Your task to perform on an android device: Search for seafood restaurants on Google Maps Image 0: 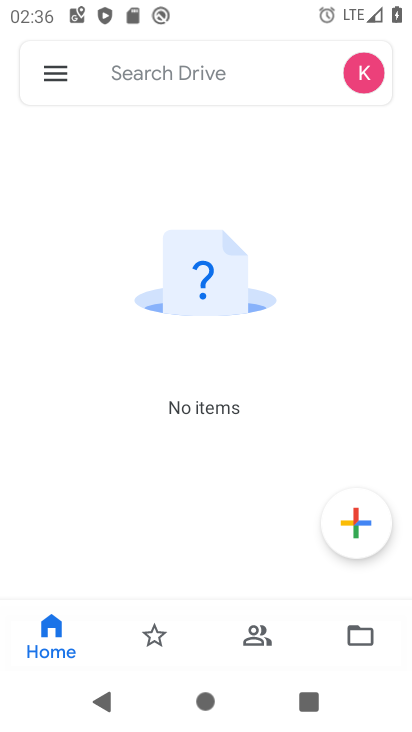
Step 0: press home button
Your task to perform on an android device: Search for seafood restaurants on Google Maps Image 1: 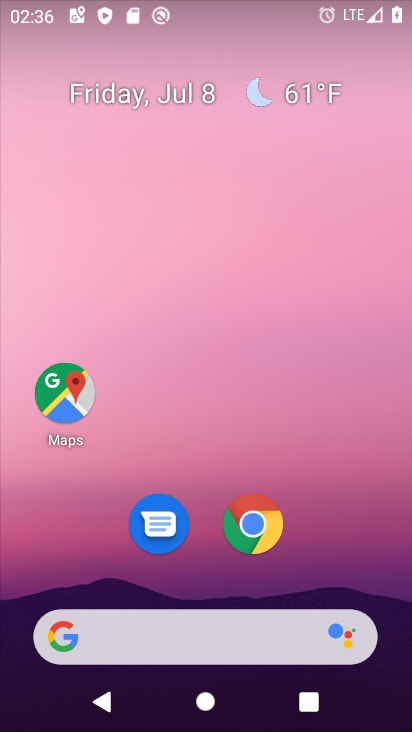
Step 1: click (80, 404)
Your task to perform on an android device: Search for seafood restaurants on Google Maps Image 2: 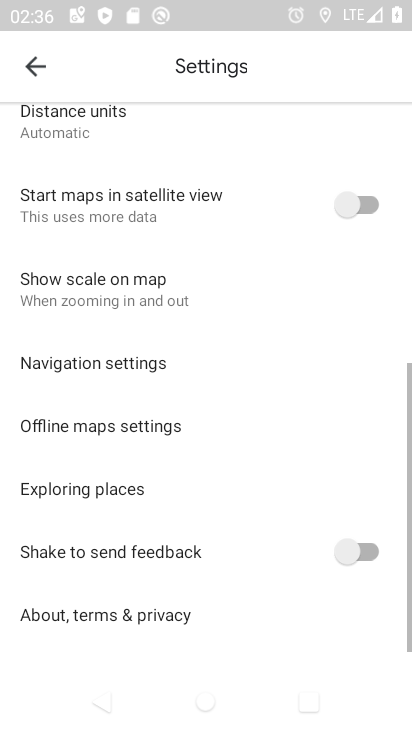
Step 2: click (24, 61)
Your task to perform on an android device: Search for seafood restaurants on Google Maps Image 3: 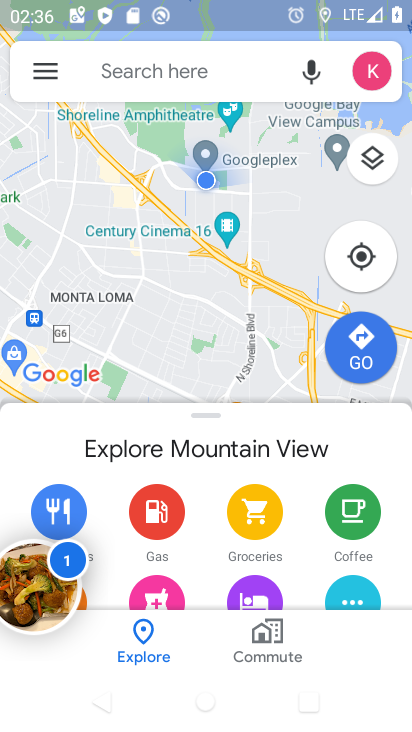
Step 3: click (138, 76)
Your task to perform on an android device: Search for seafood restaurants on Google Maps Image 4: 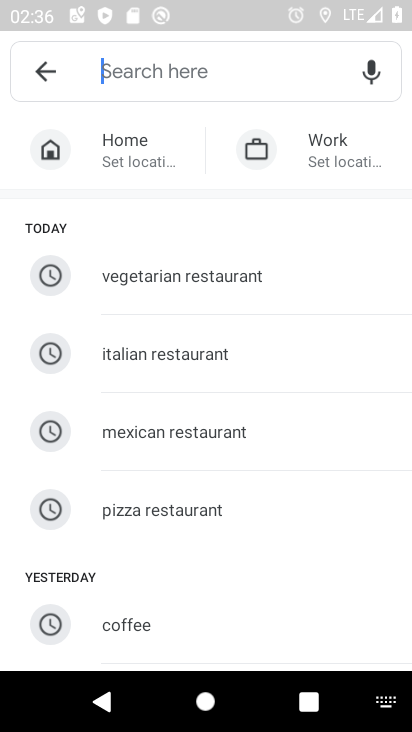
Step 4: drag from (280, 527) to (285, 320)
Your task to perform on an android device: Search for seafood restaurants on Google Maps Image 5: 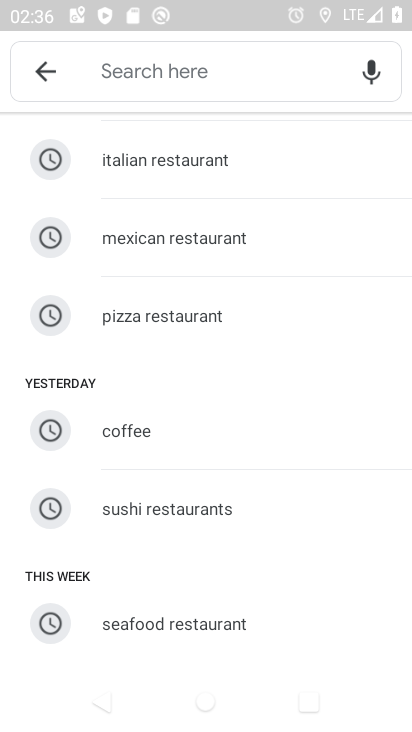
Step 5: click (217, 620)
Your task to perform on an android device: Search for seafood restaurants on Google Maps Image 6: 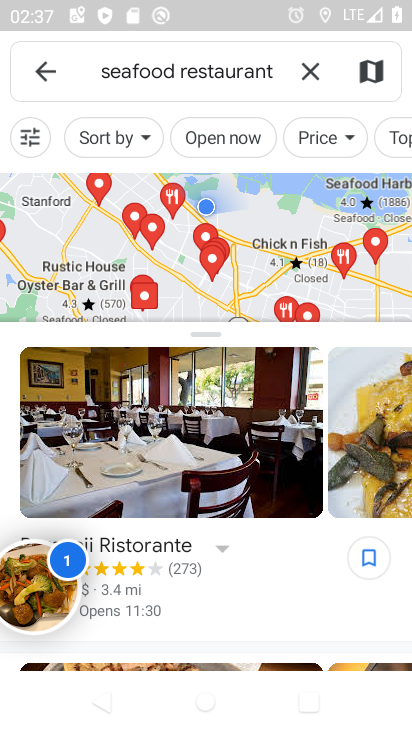
Step 6: task complete